Your task to perform on an android device: open sync settings in chrome Image 0: 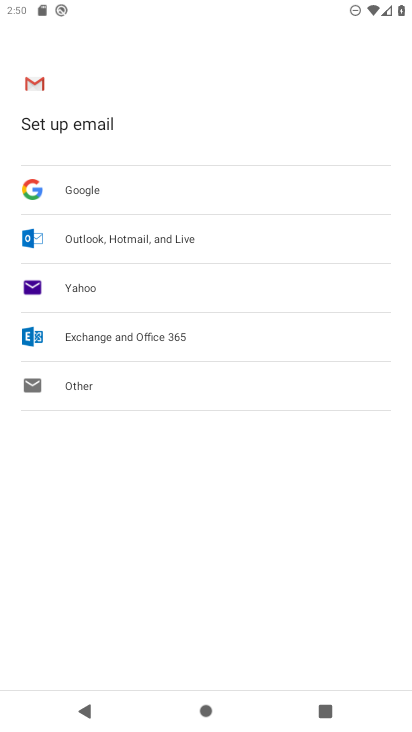
Step 0: press home button
Your task to perform on an android device: open sync settings in chrome Image 1: 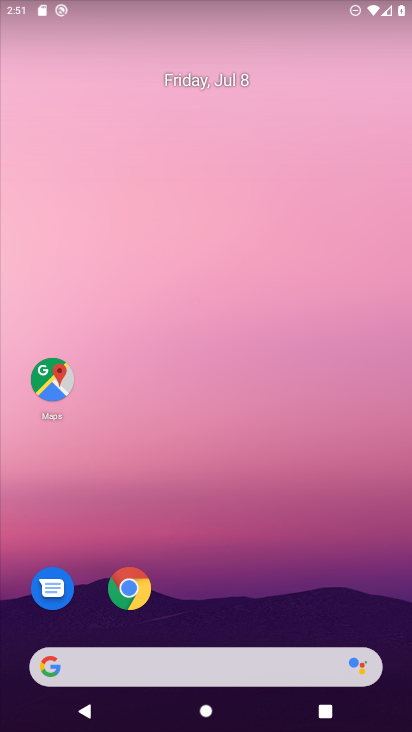
Step 1: click (211, 571)
Your task to perform on an android device: open sync settings in chrome Image 2: 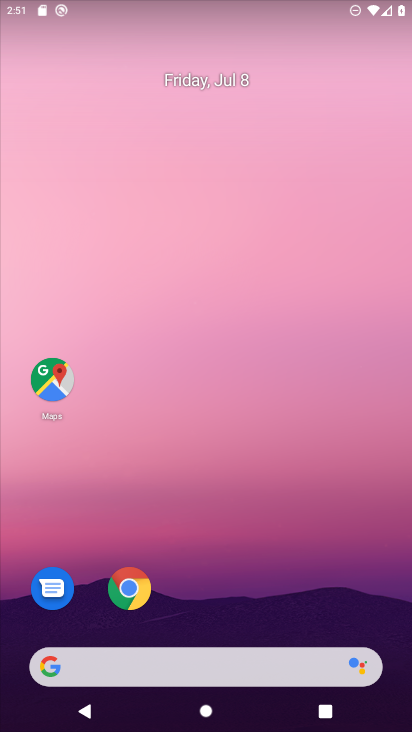
Step 2: click (124, 603)
Your task to perform on an android device: open sync settings in chrome Image 3: 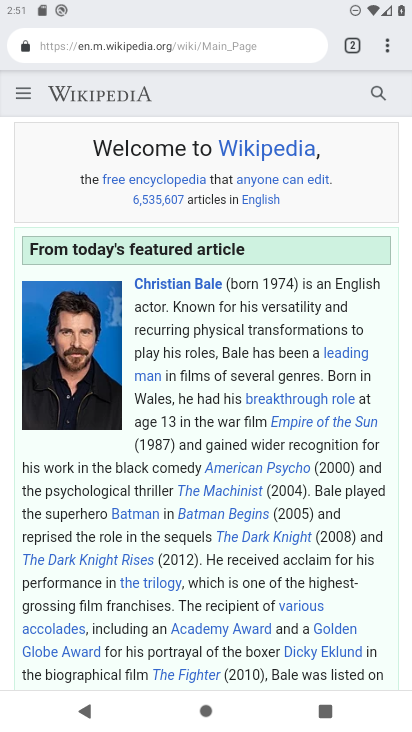
Step 3: click (385, 44)
Your task to perform on an android device: open sync settings in chrome Image 4: 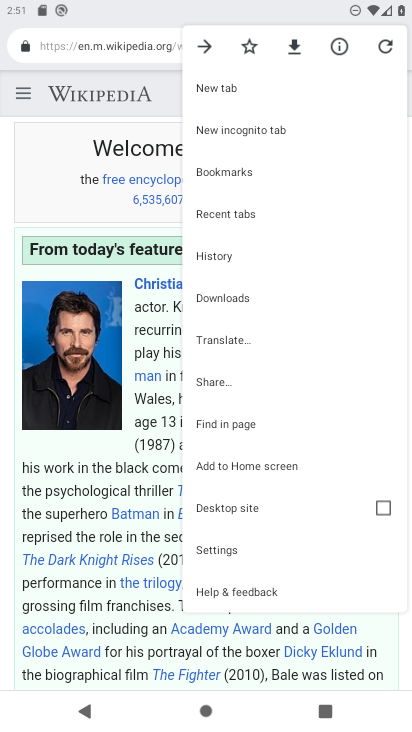
Step 4: click (219, 553)
Your task to perform on an android device: open sync settings in chrome Image 5: 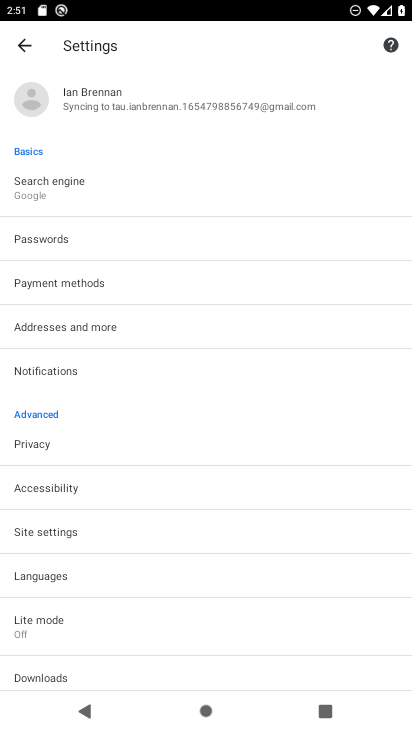
Step 5: click (225, 90)
Your task to perform on an android device: open sync settings in chrome Image 6: 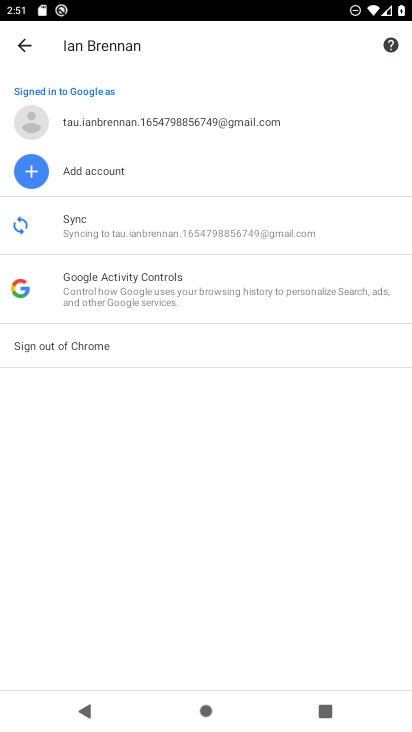
Step 6: click (174, 226)
Your task to perform on an android device: open sync settings in chrome Image 7: 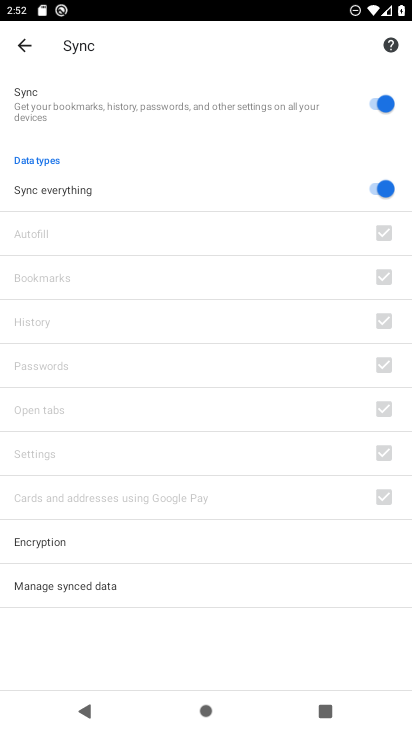
Step 7: task complete